Your task to perform on an android device: Search for Italian restaurants on Maps Image 0: 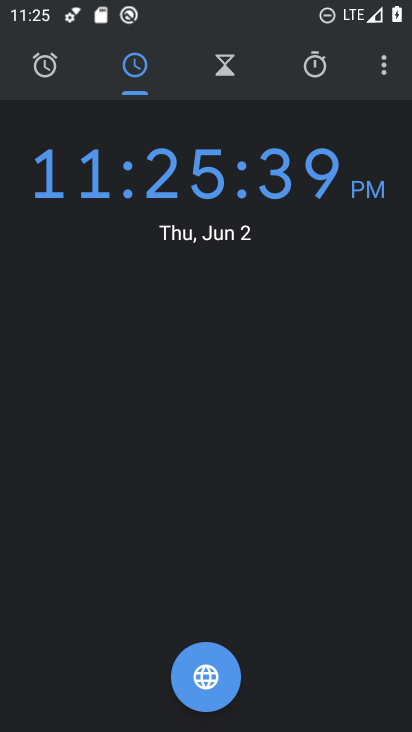
Step 0: press home button
Your task to perform on an android device: Search for Italian restaurants on Maps Image 1: 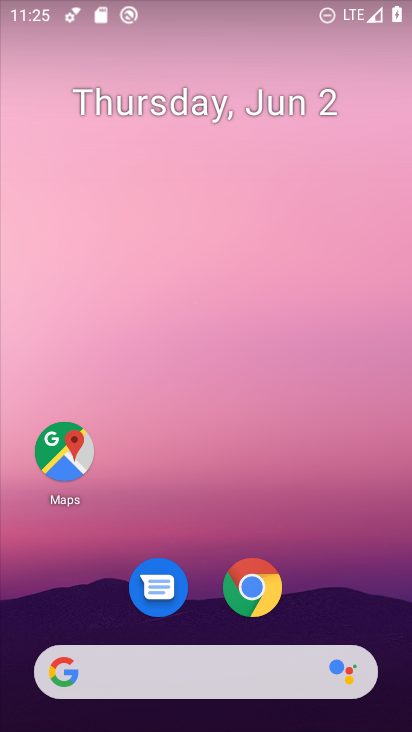
Step 1: click (60, 441)
Your task to perform on an android device: Search for Italian restaurants on Maps Image 2: 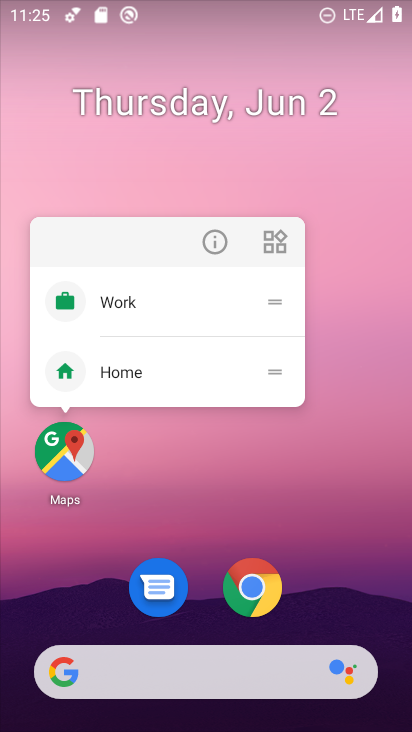
Step 2: click (61, 444)
Your task to perform on an android device: Search for Italian restaurants on Maps Image 3: 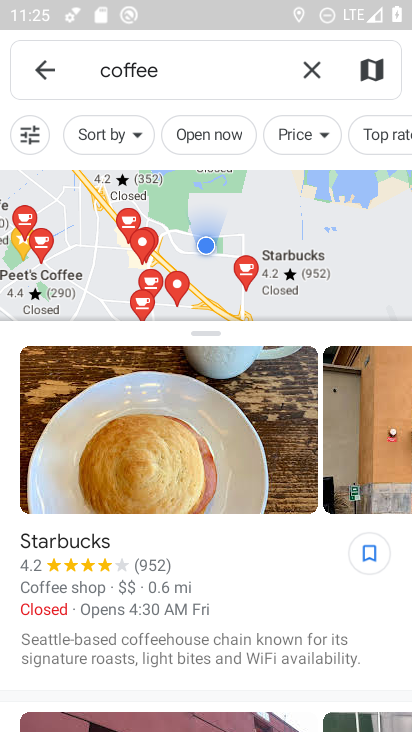
Step 3: click (318, 75)
Your task to perform on an android device: Search for Italian restaurants on Maps Image 4: 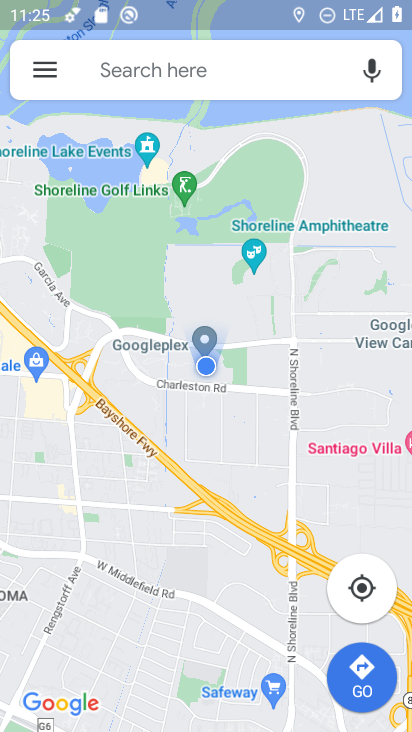
Step 4: click (148, 84)
Your task to perform on an android device: Search for Italian restaurants on Maps Image 5: 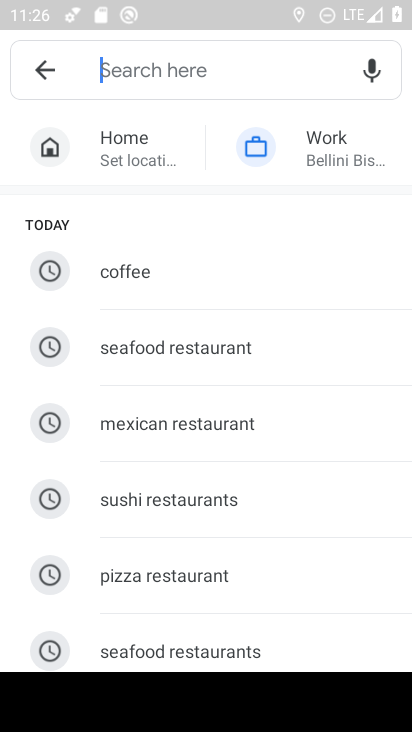
Step 5: type "Italian restaurants"
Your task to perform on an android device: Search for Italian restaurants on Maps Image 6: 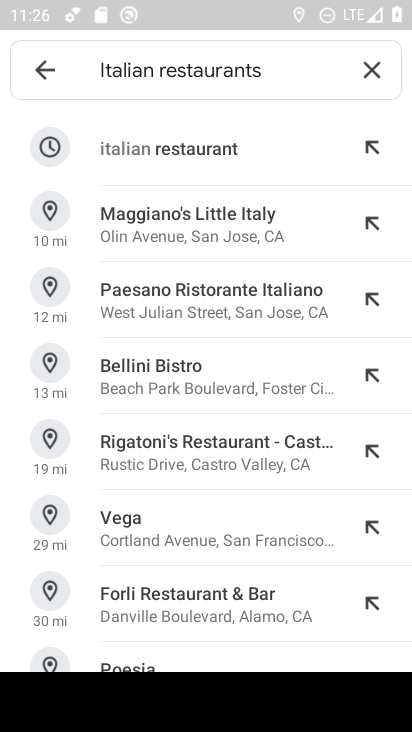
Step 6: click (210, 147)
Your task to perform on an android device: Search for Italian restaurants on Maps Image 7: 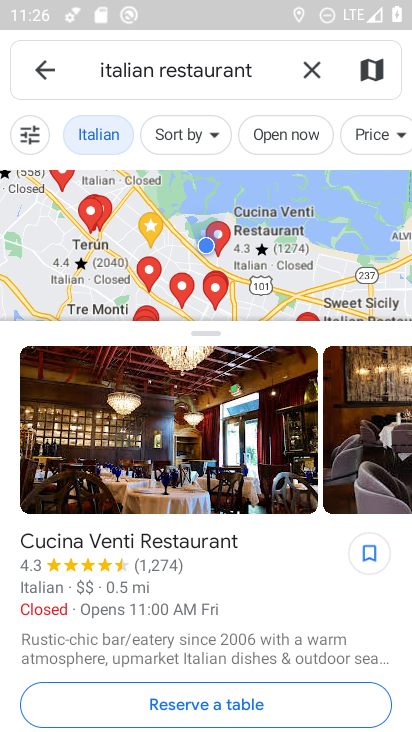
Step 7: task complete